Your task to perform on an android device: delete the emails in spam in the gmail app Image 0: 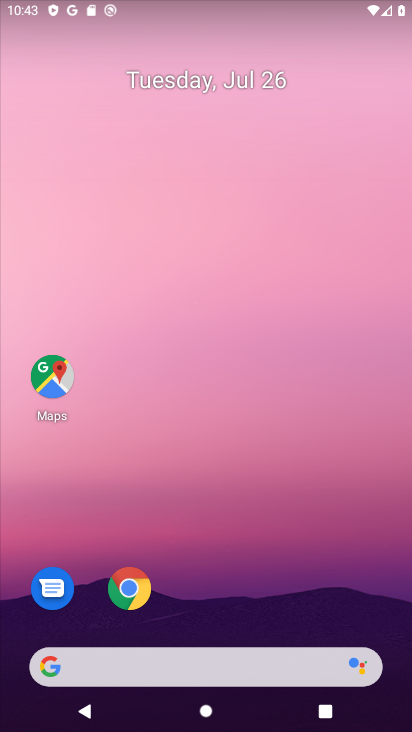
Step 0: press home button
Your task to perform on an android device: delete the emails in spam in the gmail app Image 1: 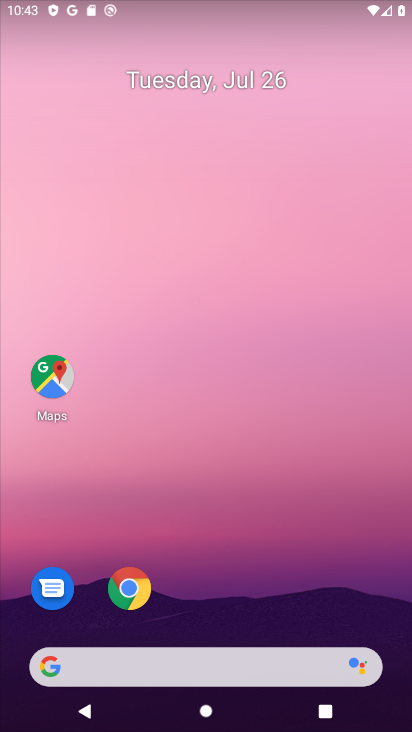
Step 1: drag from (216, 632) to (244, 0)
Your task to perform on an android device: delete the emails in spam in the gmail app Image 2: 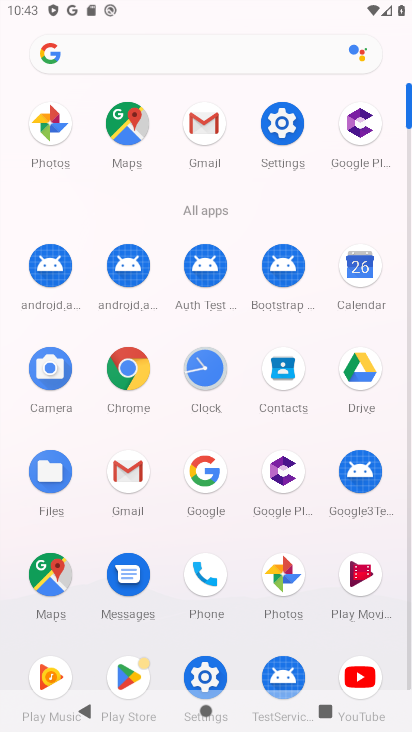
Step 2: click (203, 115)
Your task to perform on an android device: delete the emails in spam in the gmail app Image 3: 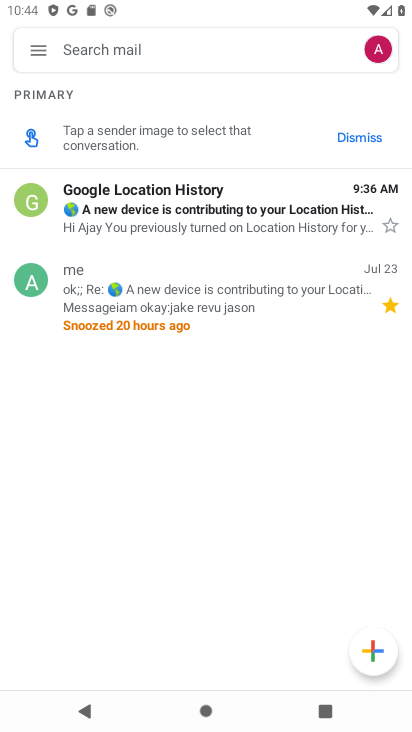
Step 3: click (38, 47)
Your task to perform on an android device: delete the emails in spam in the gmail app Image 4: 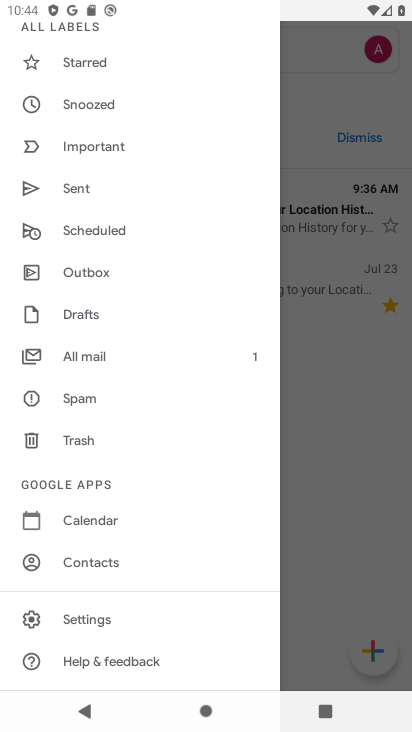
Step 4: click (93, 394)
Your task to perform on an android device: delete the emails in spam in the gmail app Image 5: 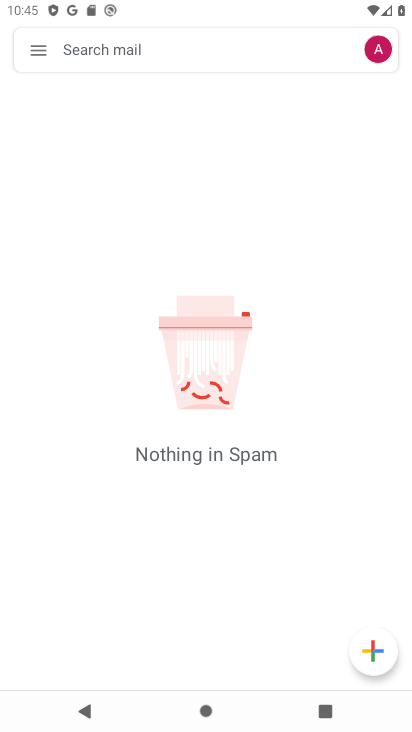
Step 5: task complete